Your task to perform on an android device: uninstall "TextNow: Call + Text Unlimited" Image 0: 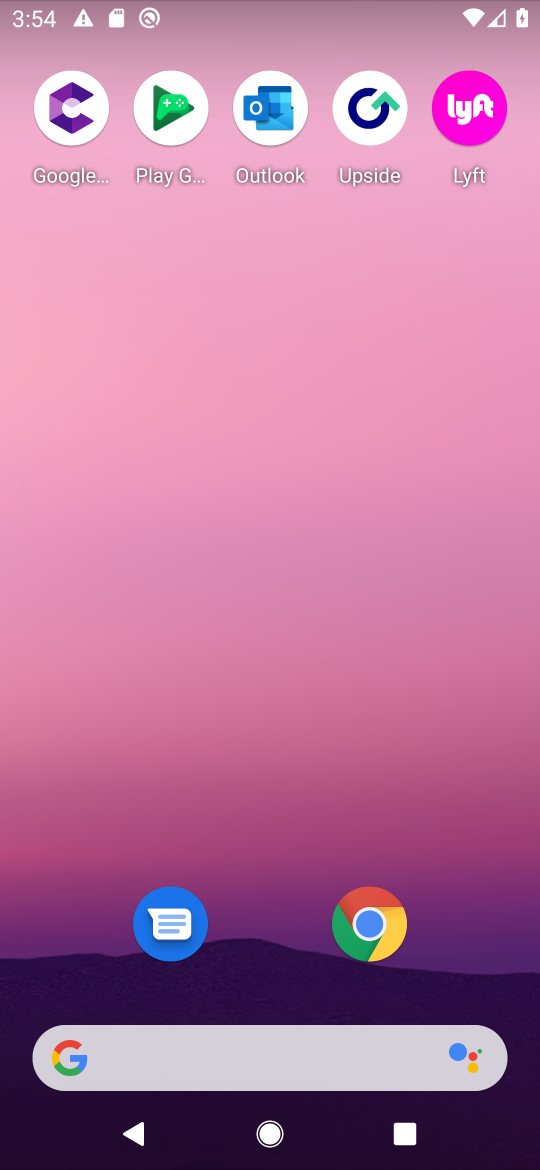
Step 0: drag from (279, 654) to (301, 15)
Your task to perform on an android device: uninstall "TextNow: Call + Text Unlimited" Image 1: 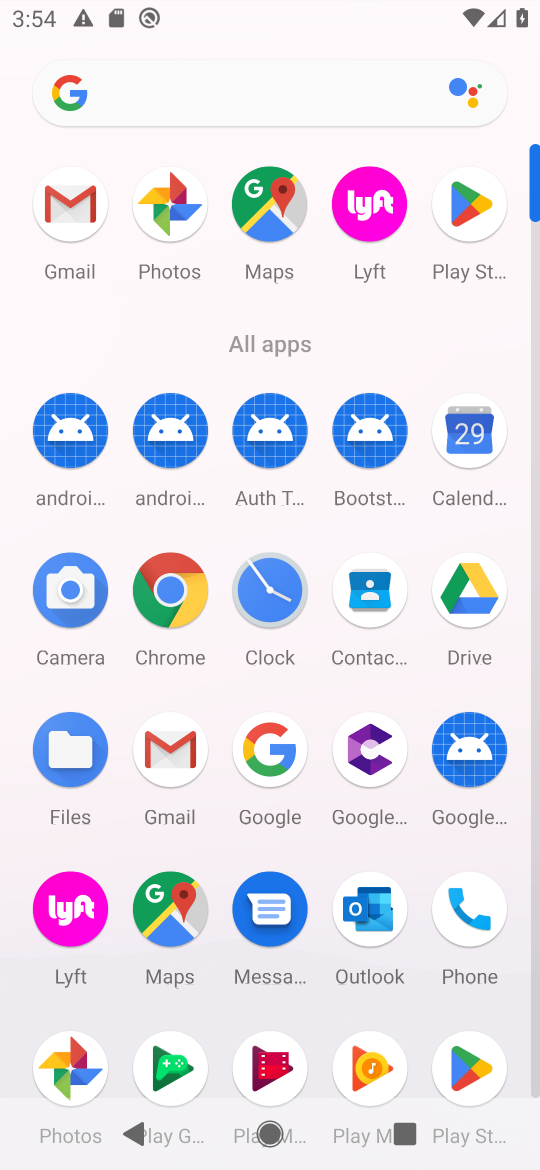
Step 1: click (472, 212)
Your task to perform on an android device: uninstall "TextNow: Call + Text Unlimited" Image 2: 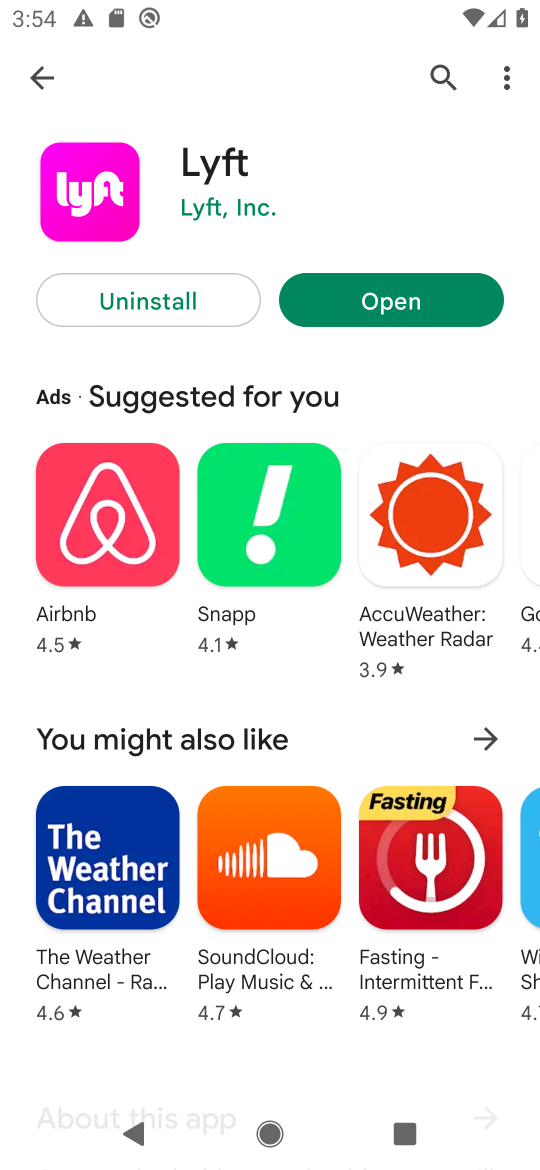
Step 2: click (434, 72)
Your task to perform on an android device: uninstall "TextNow: Call + Text Unlimited" Image 3: 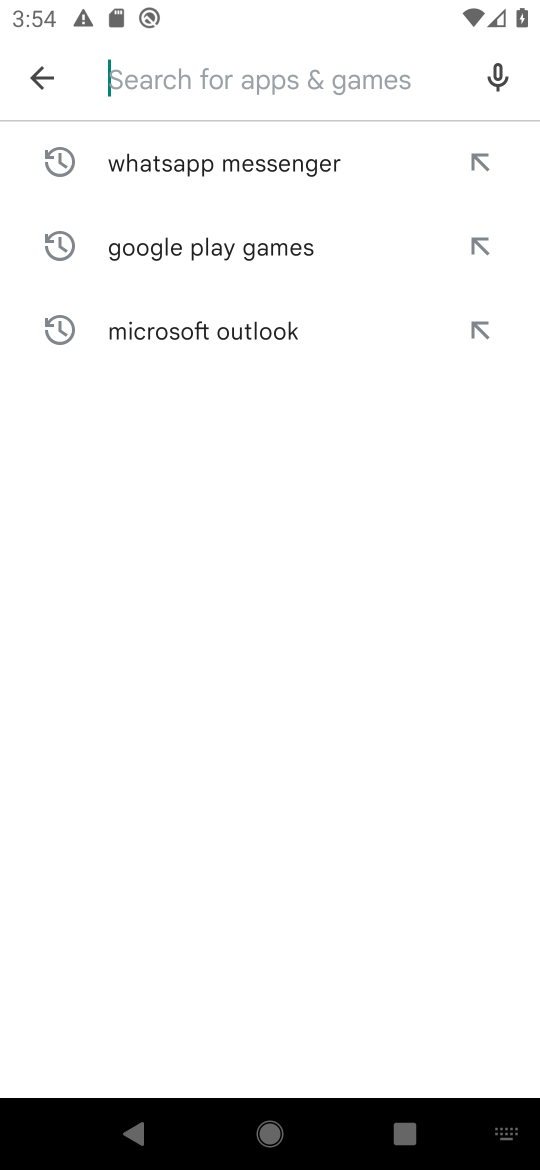
Step 3: type "TextNow: Call + Text Unlimited"
Your task to perform on an android device: uninstall "TextNow: Call + Text Unlimited" Image 4: 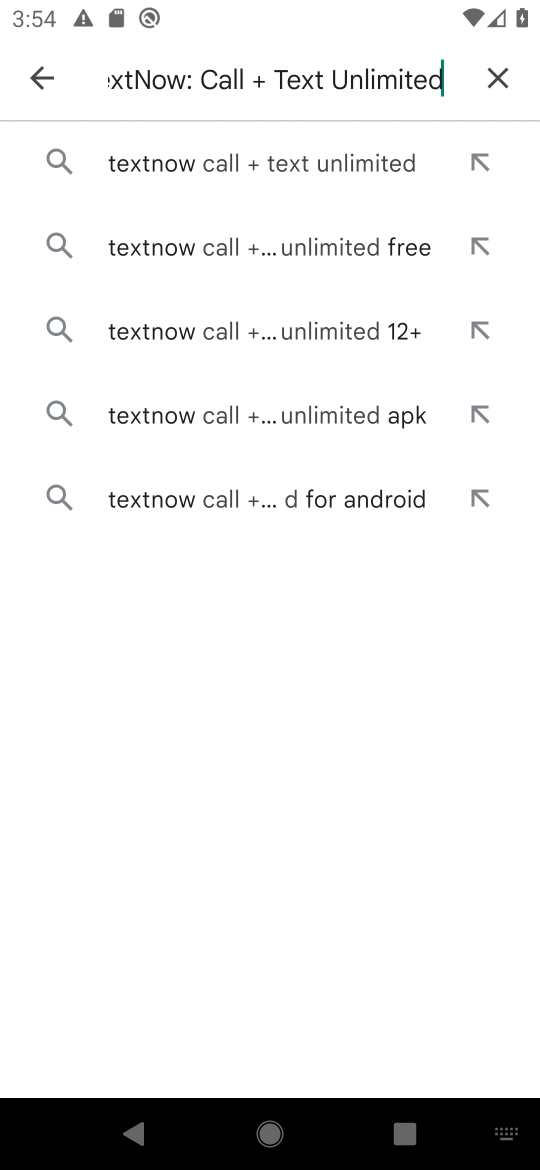
Step 4: click (201, 160)
Your task to perform on an android device: uninstall "TextNow: Call + Text Unlimited" Image 5: 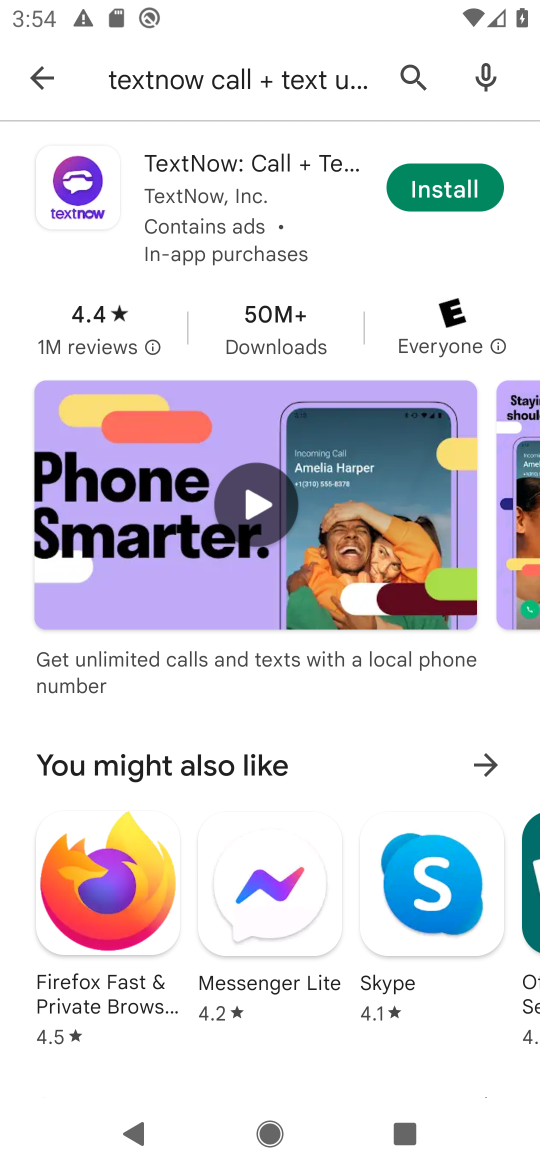
Step 5: task complete